Your task to perform on an android device: toggle pop-ups in chrome Image 0: 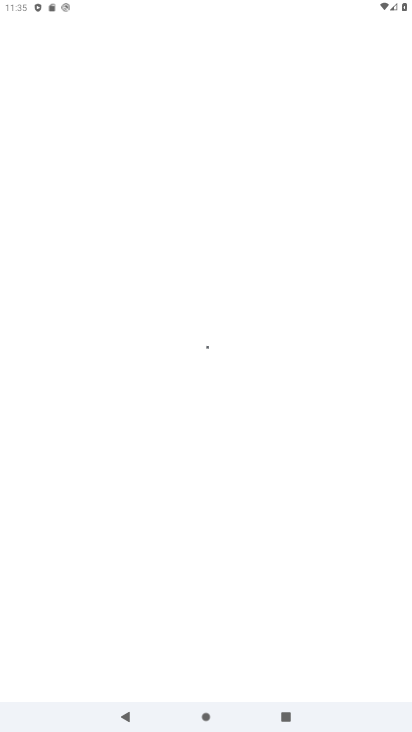
Step 0: press home button
Your task to perform on an android device: toggle pop-ups in chrome Image 1: 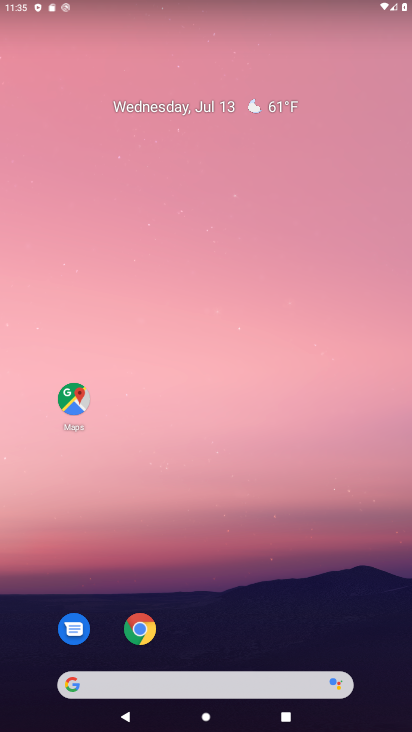
Step 1: click (151, 634)
Your task to perform on an android device: toggle pop-ups in chrome Image 2: 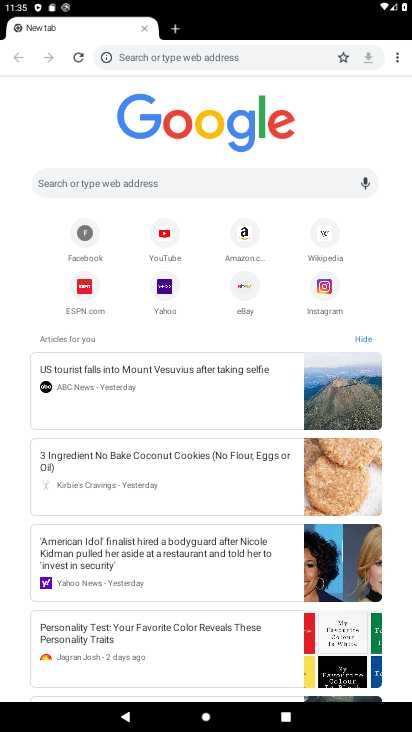
Step 2: click (399, 58)
Your task to perform on an android device: toggle pop-ups in chrome Image 3: 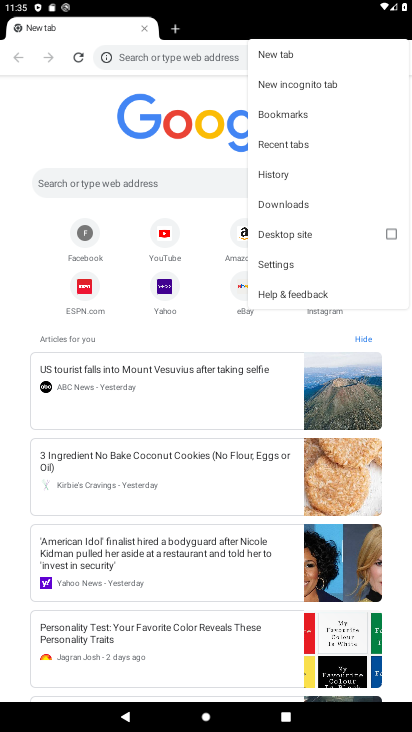
Step 3: click (277, 273)
Your task to perform on an android device: toggle pop-ups in chrome Image 4: 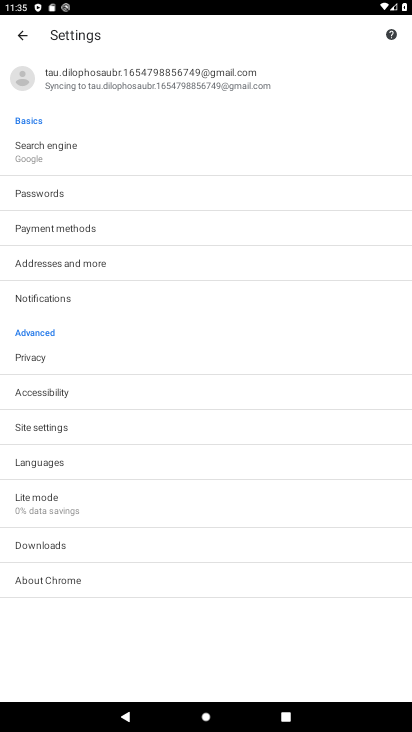
Step 4: click (105, 425)
Your task to perform on an android device: toggle pop-ups in chrome Image 5: 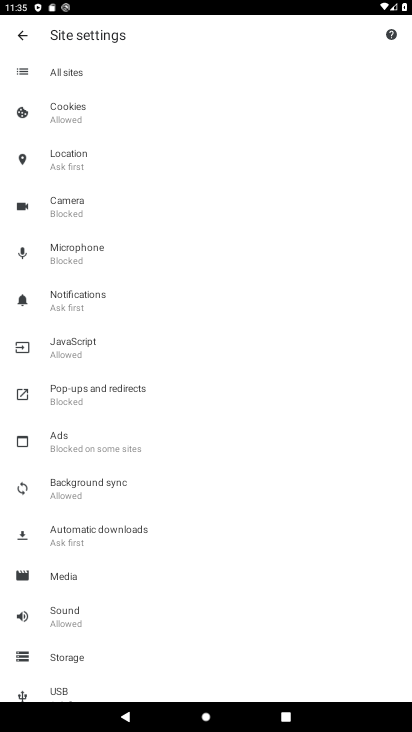
Step 5: click (87, 401)
Your task to perform on an android device: toggle pop-ups in chrome Image 6: 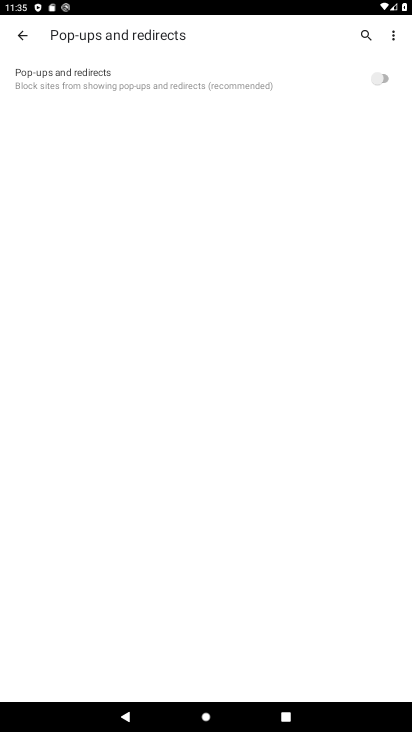
Step 6: click (377, 78)
Your task to perform on an android device: toggle pop-ups in chrome Image 7: 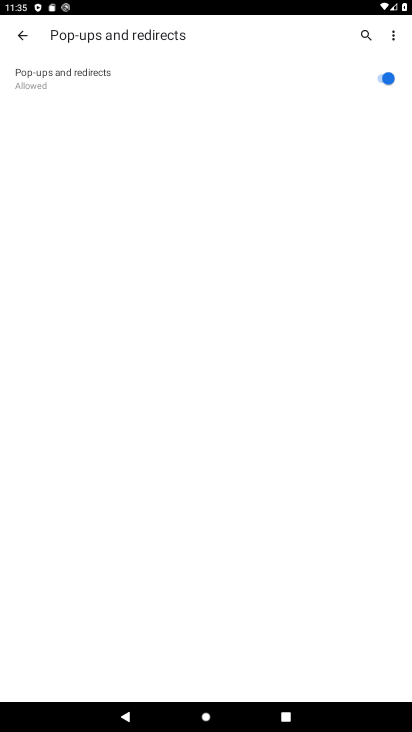
Step 7: task complete